Your task to perform on an android device: How do I get to the nearest Subway? Image 0: 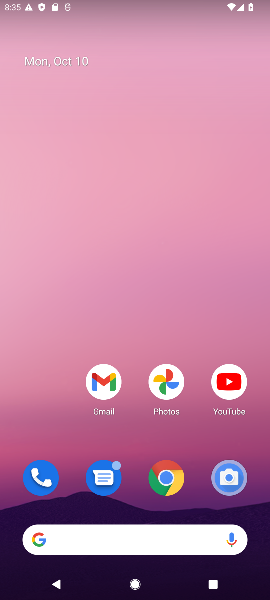
Step 0: click (164, 473)
Your task to perform on an android device: How do I get to the nearest Subway? Image 1: 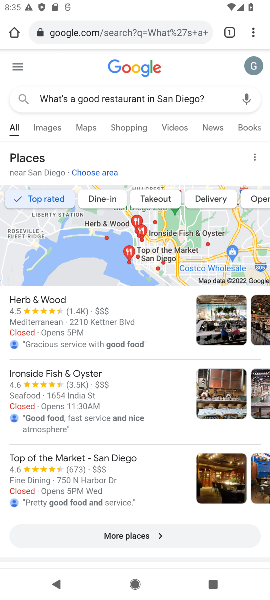
Step 1: click (111, 27)
Your task to perform on an android device: How do I get to the nearest Subway? Image 2: 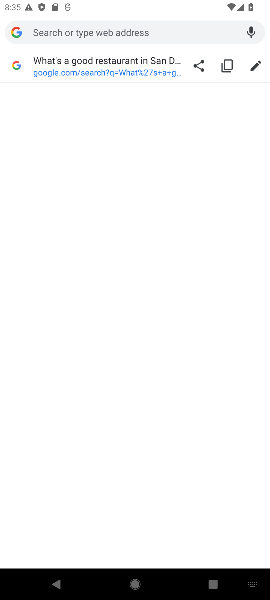
Step 2: type "How do I get to the nearest Subway?"
Your task to perform on an android device: How do I get to the nearest Subway? Image 3: 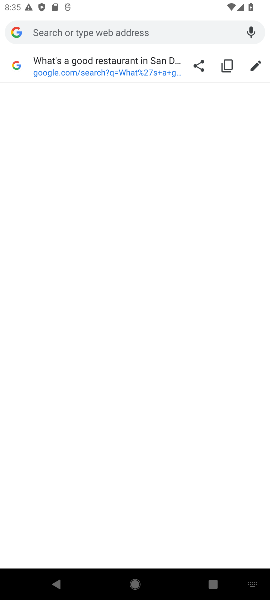
Step 3: click (183, 37)
Your task to perform on an android device: How do I get to the nearest Subway? Image 4: 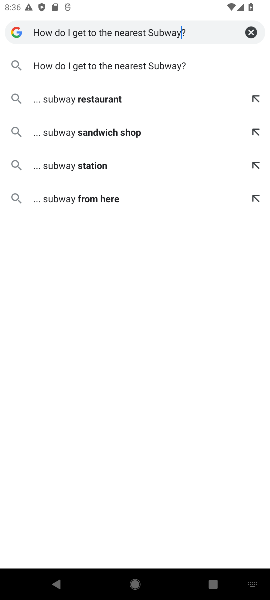
Step 4: click (180, 31)
Your task to perform on an android device: How do I get to the nearest Subway? Image 5: 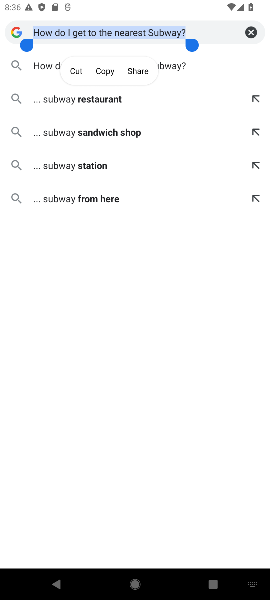
Step 5: click (173, 65)
Your task to perform on an android device: How do I get to the nearest Subway? Image 6: 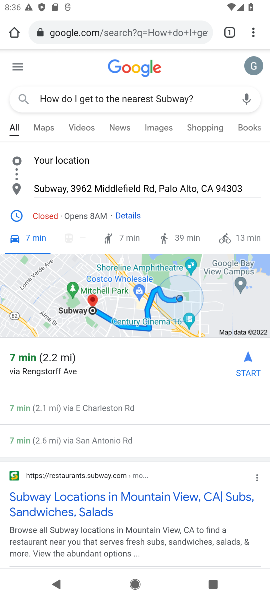
Step 6: task complete